Your task to perform on an android device: move an email to a new category in the gmail app Image 0: 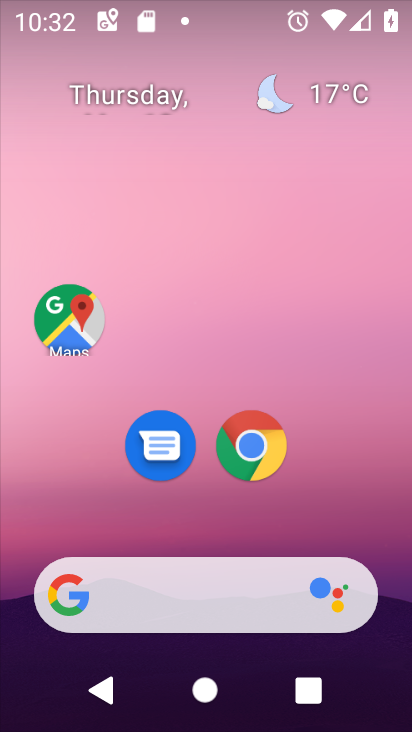
Step 0: drag from (237, 535) to (237, 217)
Your task to perform on an android device: move an email to a new category in the gmail app Image 1: 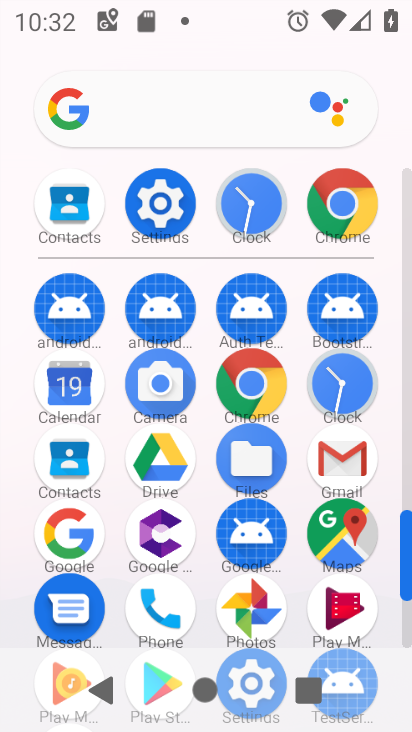
Step 1: click (352, 440)
Your task to perform on an android device: move an email to a new category in the gmail app Image 2: 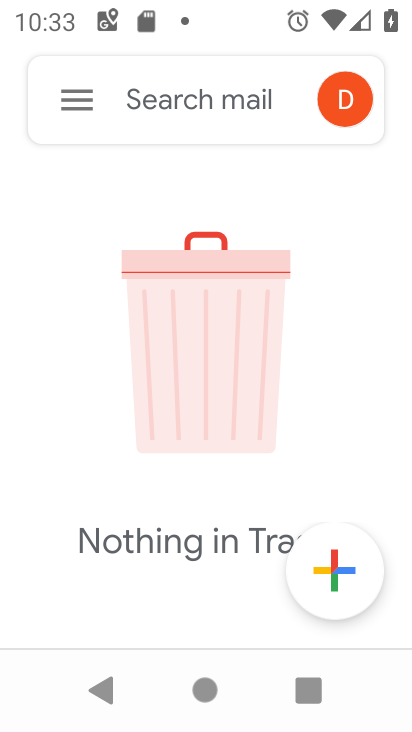
Step 2: task complete